Your task to perform on an android device: delete a single message in the gmail app Image 0: 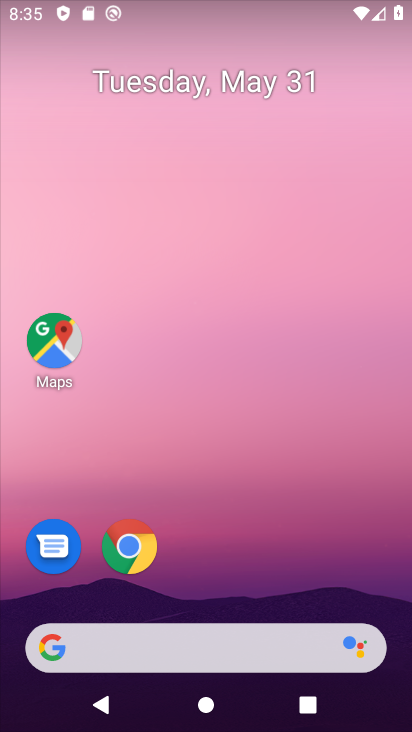
Step 0: drag from (405, 704) to (402, 172)
Your task to perform on an android device: delete a single message in the gmail app Image 1: 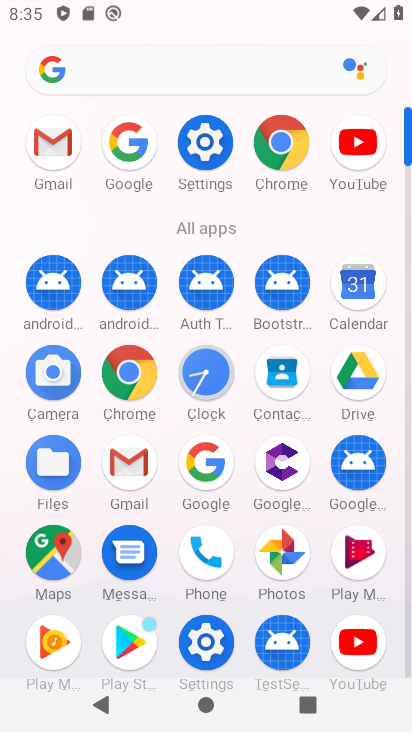
Step 1: click (133, 459)
Your task to perform on an android device: delete a single message in the gmail app Image 2: 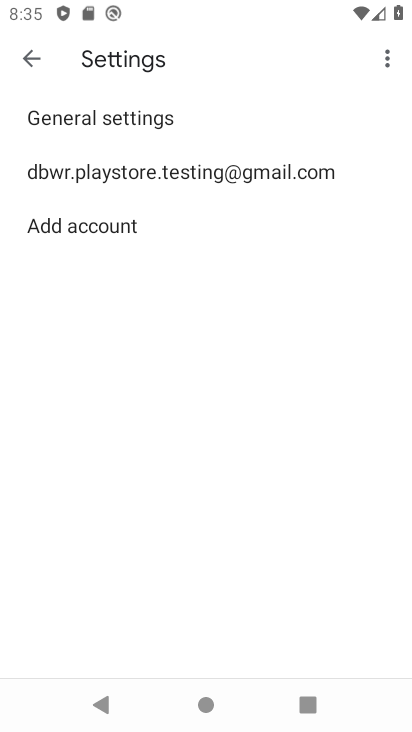
Step 2: click (25, 63)
Your task to perform on an android device: delete a single message in the gmail app Image 3: 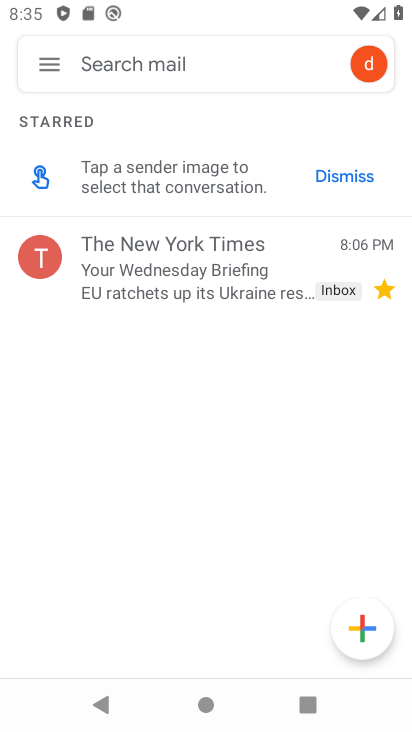
Step 3: click (44, 70)
Your task to perform on an android device: delete a single message in the gmail app Image 4: 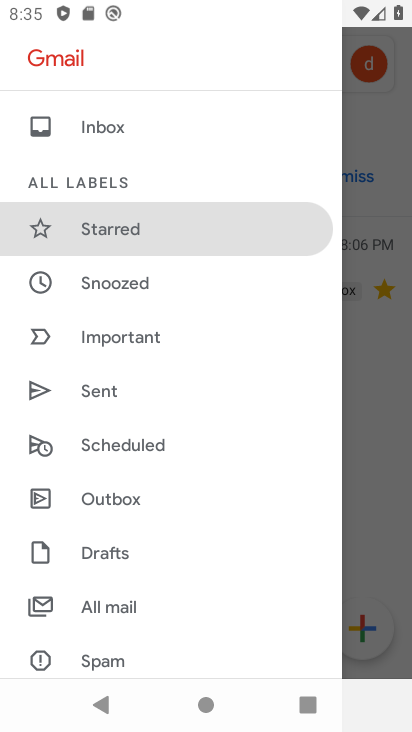
Step 4: click (105, 123)
Your task to perform on an android device: delete a single message in the gmail app Image 5: 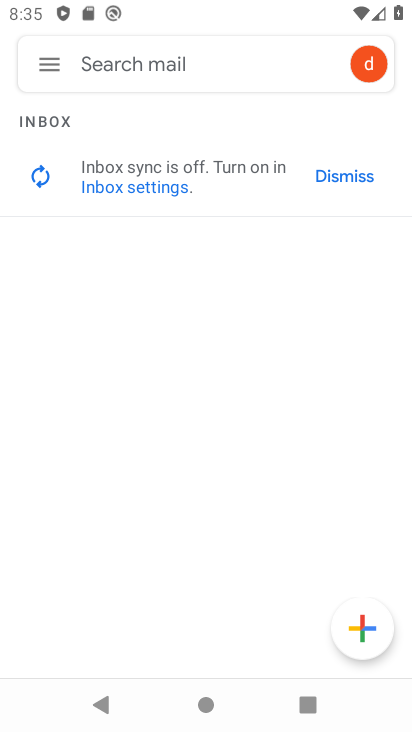
Step 5: task complete